Your task to perform on an android device: Go to settings Image 0: 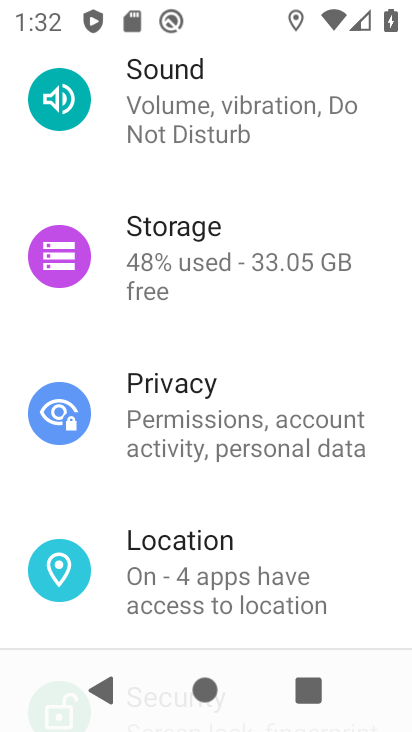
Step 0: press home button
Your task to perform on an android device: Go to settings Image 1: 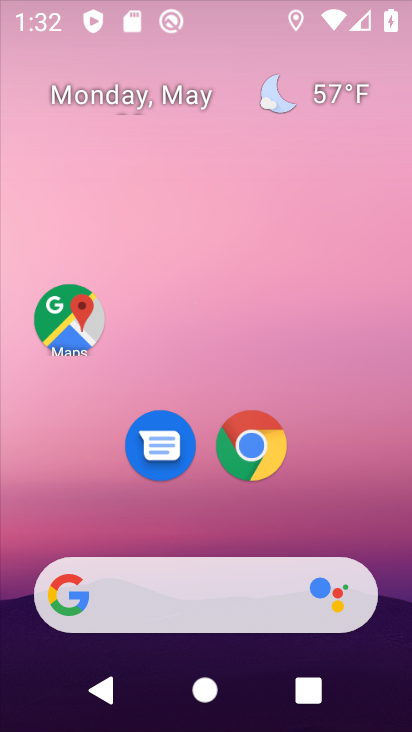
Step 1: drag from (240, 507) to (296, 115)
Your task to perform on an android device: Go to settings Image 2: 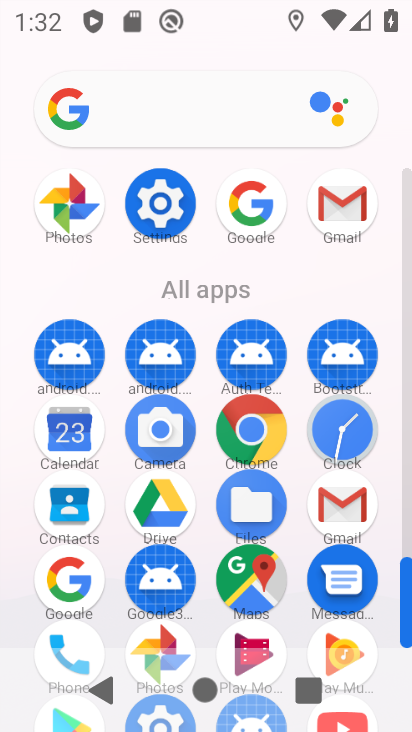
Step 2: click (166, 197)
Your task to perform on an android device: Go to settings Image 3: 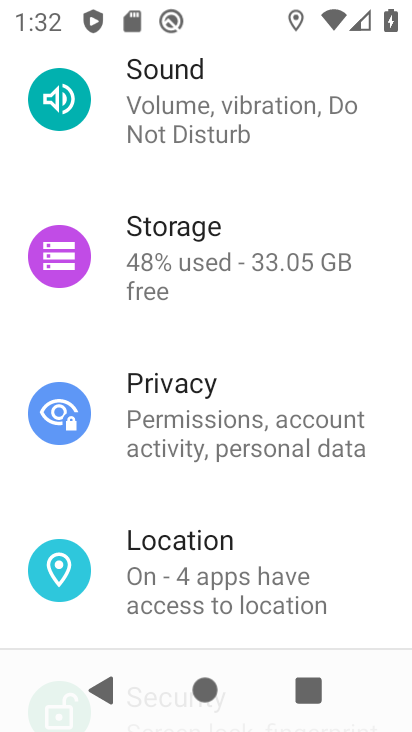
Step 3: task complete